Your task to perform on an android device: Show me popular games on the Play Store Image 0: 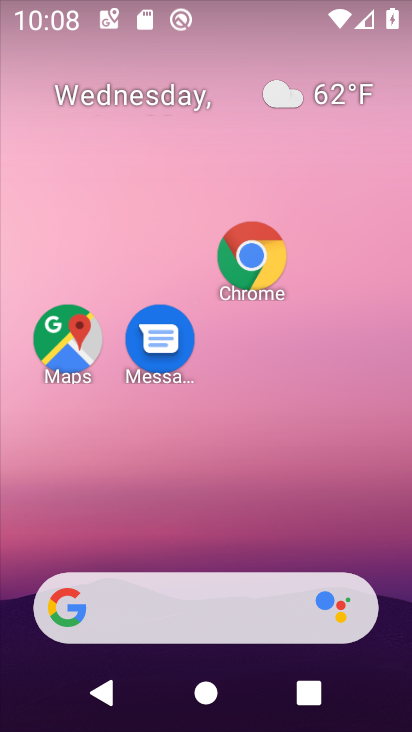
Step 0: drag from (204, 478) to (176, 9)
Your task to perform on an android device: Show me popular games on the Play Store Image 1: 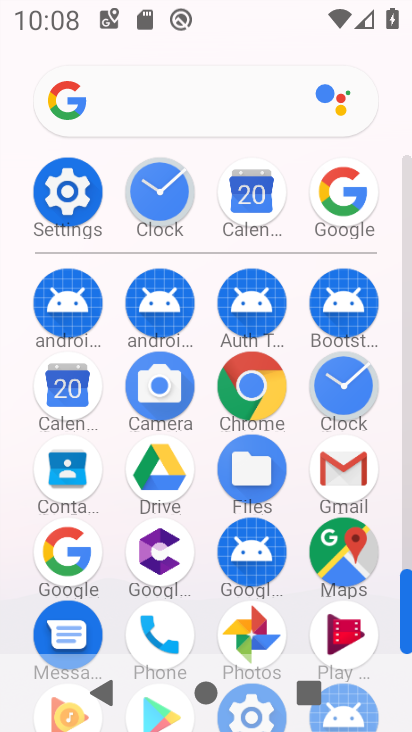
Step 1: drag from (198, 600) to (199, 282)
Your task to perform on an android device: Show me popular games on the Play Store Image 2: 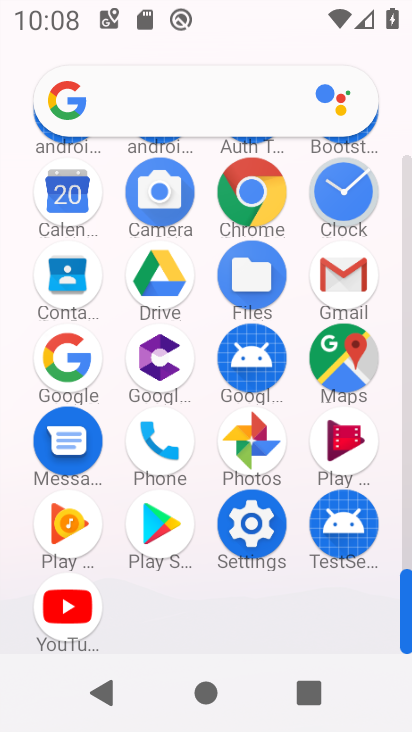
Step 2: click (161, 526)
Your task to perform on an android device: Show me popular games on the Play Store Image 3: 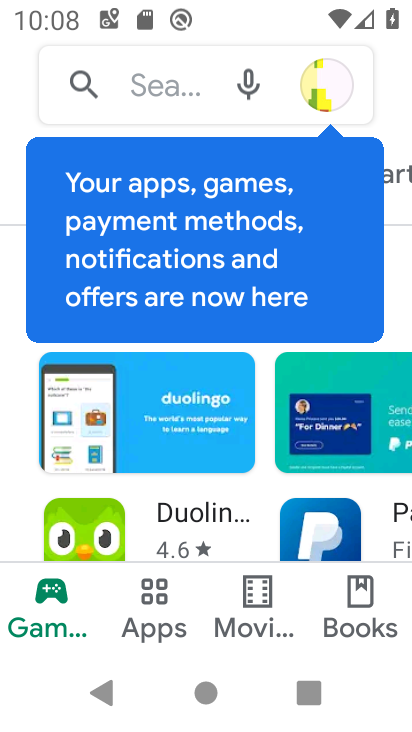
Step 3: task complete